Your task to perform on an android device: toggle location history Image 0: 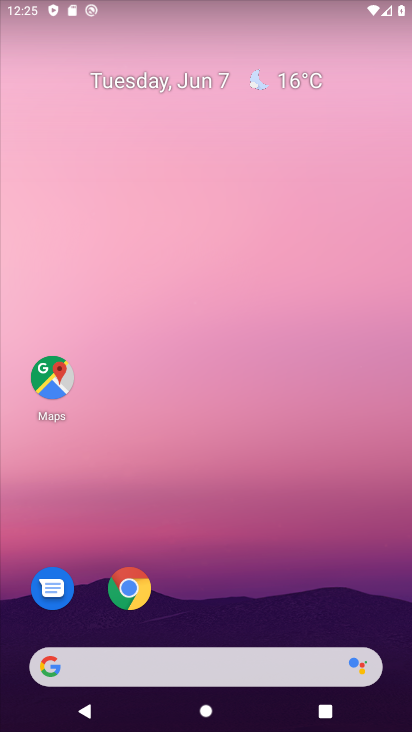
Step 0: drag from (322, 605) to (231, 40)
Your task to perform on an android device: toggle location history Image 1: 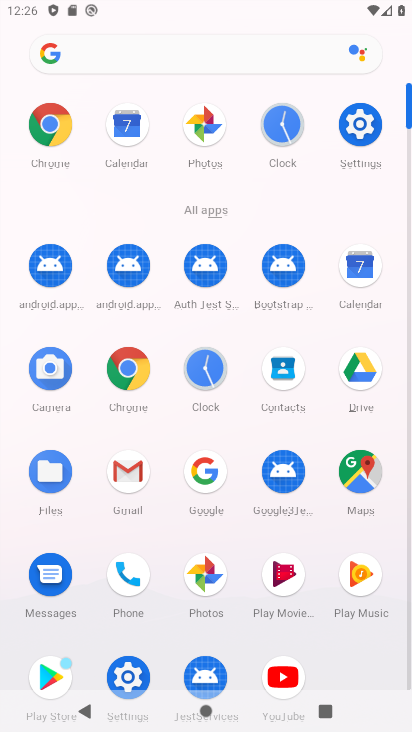
Step 1: click (357, 129)
Your task to perform on an android device: toggle location history Image 2: 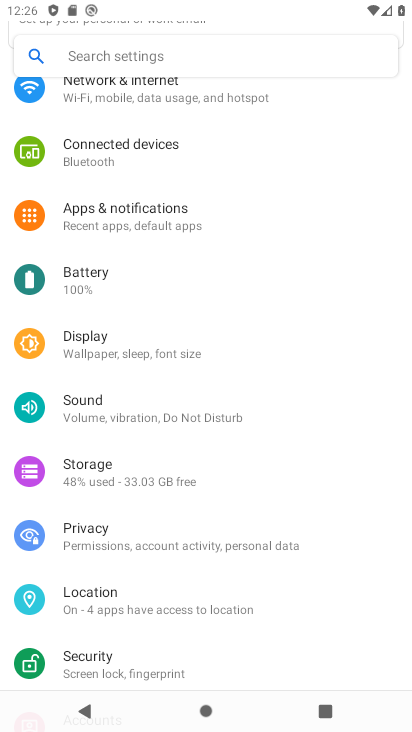
Step 2: click (206, 602)
Your task to perform on an android device: toggle location history Image 3: 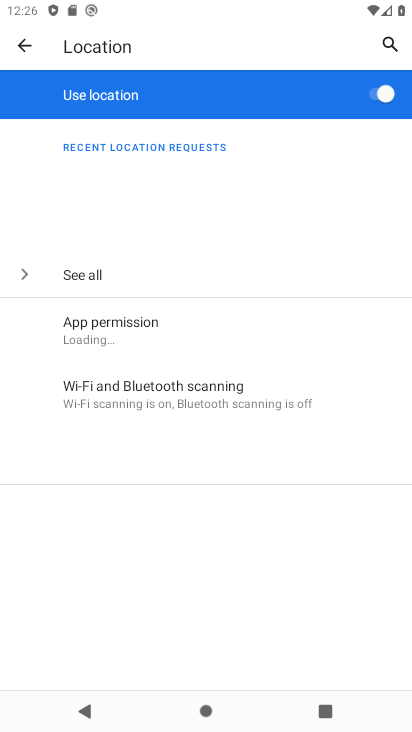
Step 3: task complete